Your task to perform on an android device: turn on javascript in the chrome app Image 0: 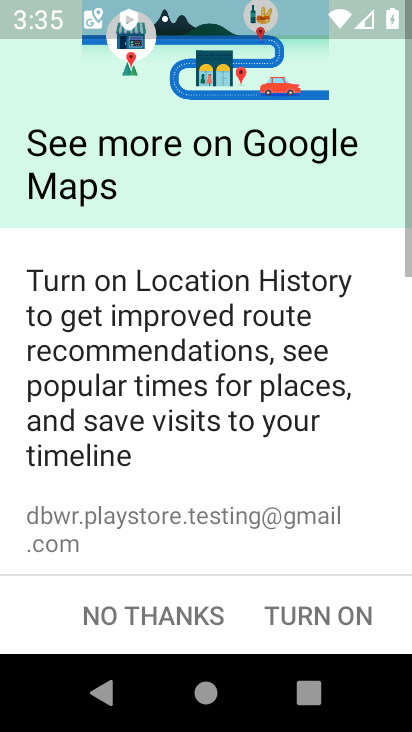
Step 0: press home button
Your task to perform on an android device: turn on javascript in the chrome app Image 1: 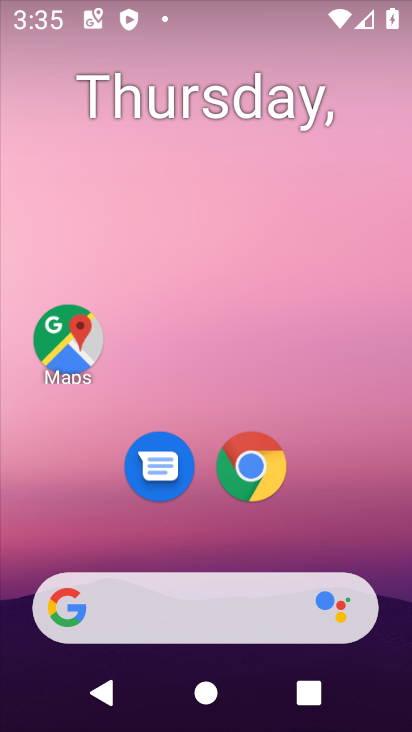
Step 1: drag from (285, 603) to (316, 2)
Your task to perform on an android device: turn on javascript in the chrome app Image 2: 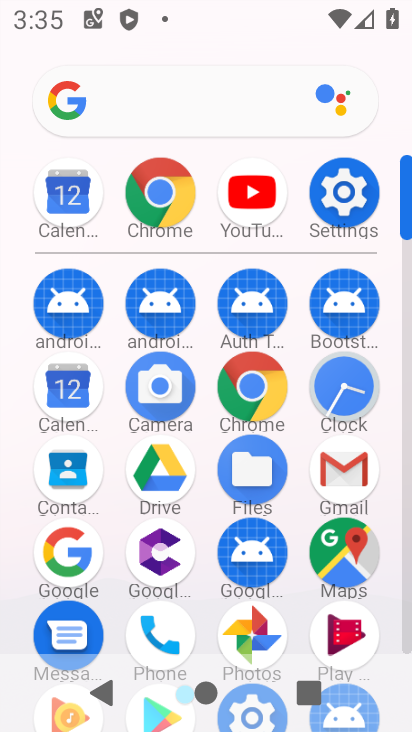
Step 2: click (269, 394)
Your task to perform on an android device: turn on javascript in the chrome app Image 3: 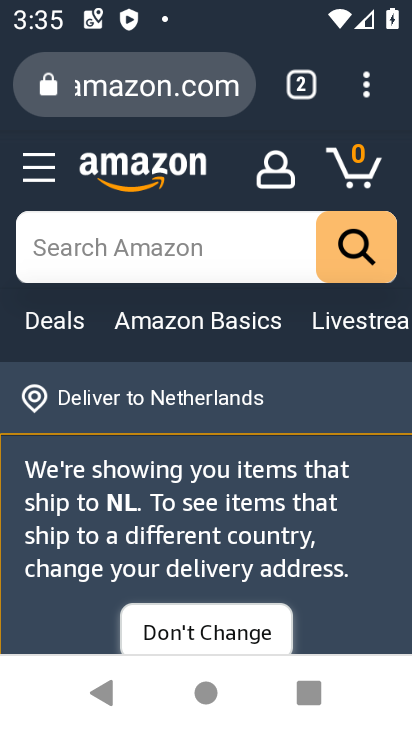
Step 3: click (371, 94)
Your task to perform on an android device: turn on javascript in the chrome app Image 4: 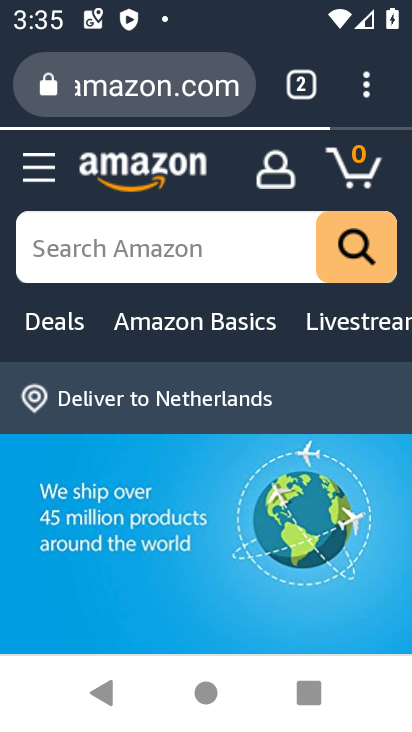
Step 4: drag from (365, 82) to (127, 519)
Your task to perform on an android device: turn on javascript in the chrome app Image 5: 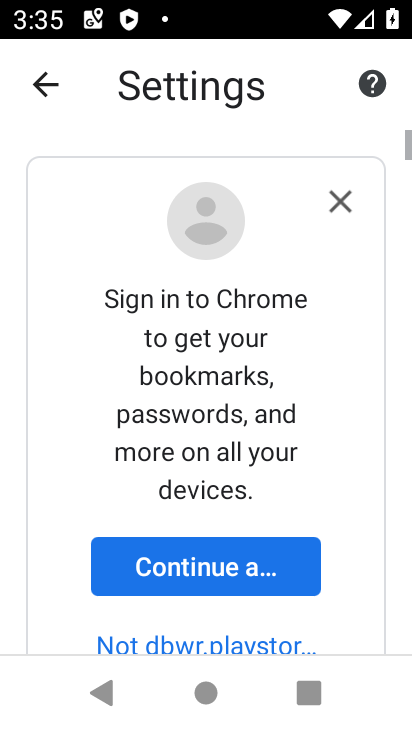
Step 5: drag from (308, 632) to (227, 24)
Your task to perform on an android device: turn on javascript in the chrome app Image 6: 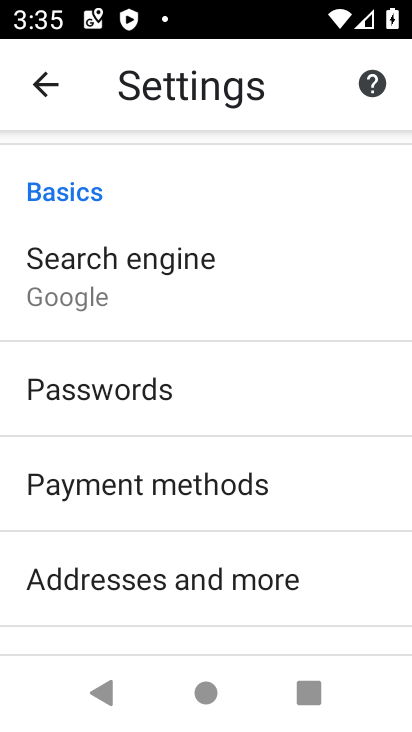
Step 6: drag from (262, 617) to (264, 279)
Your task to perform on an android device: turn on javascript in the chrome app Image 7: 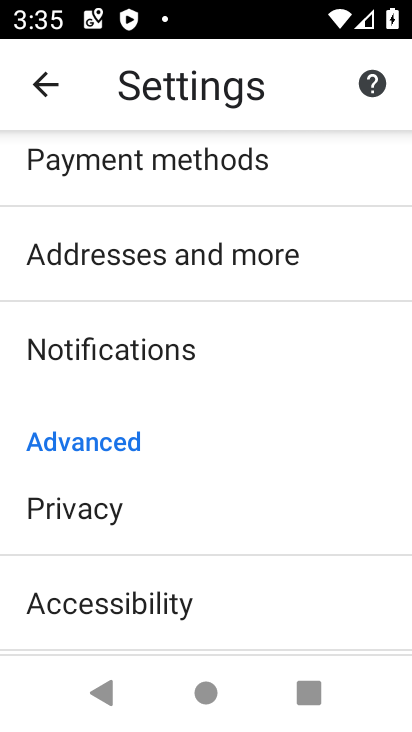
Step 7: drag from (267, 643) to (269, 245)
Your task to perform on an android device: turn on javascript in the chrome app Image 8: 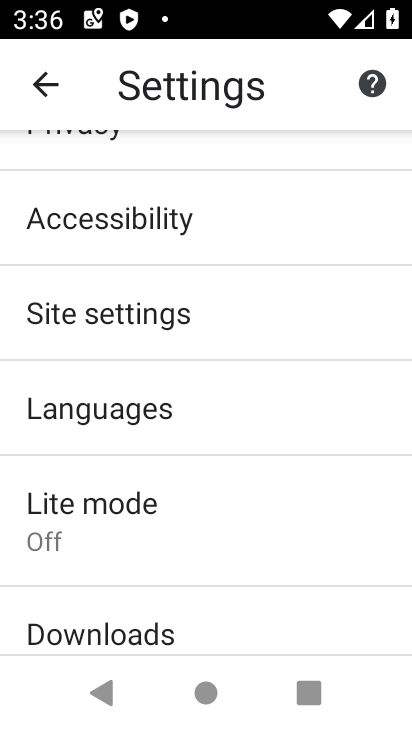
Step 8: click (192, 315)
Your task to perform on an android device: turn on javascript in the chrome app Image 9: 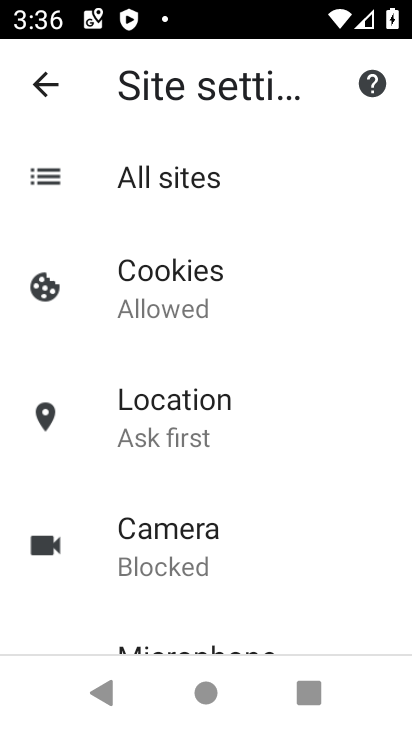
Step 9: drag from (194, 593) to (269, 20)
Your task to perform on an android device: turn on javascript in the chrome app Image 10: 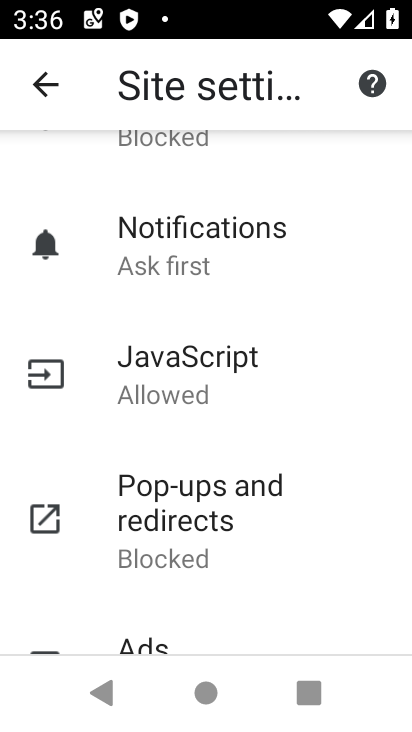
Step 10: click (251, 384)
Your task to perform on an android device: turn on javascript in the chrome app Image 11: 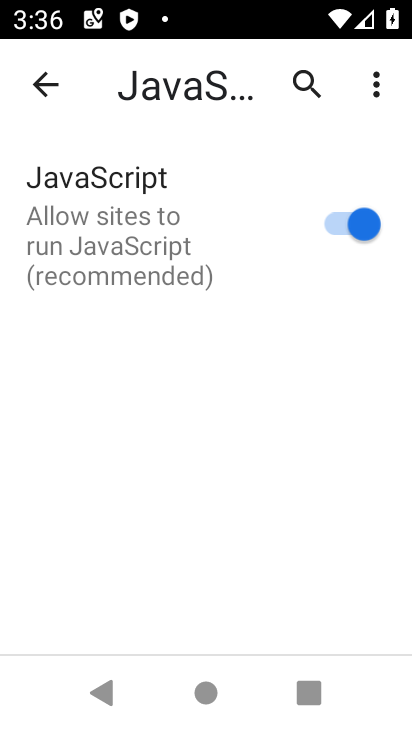
Step 11: task complete